Your task to perform on an android device: View the shopping cart on newegg. Add "razer blackwidow" to the cart on newegg Image 0: 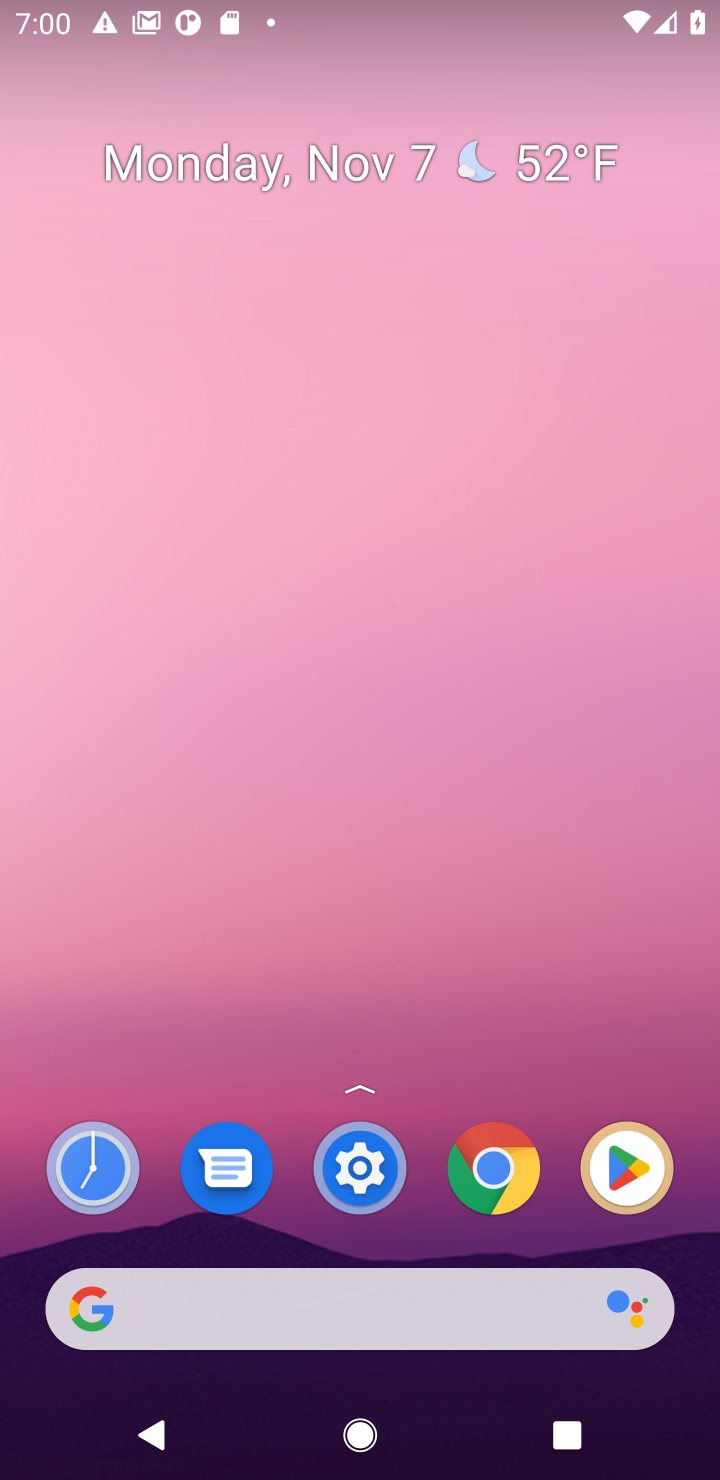
Step 0: click (302, 1335)
Your task to perform on an android device: View the shopping cart on newegg. Add "razer blackwidow" to the cart on newegg Image 1: 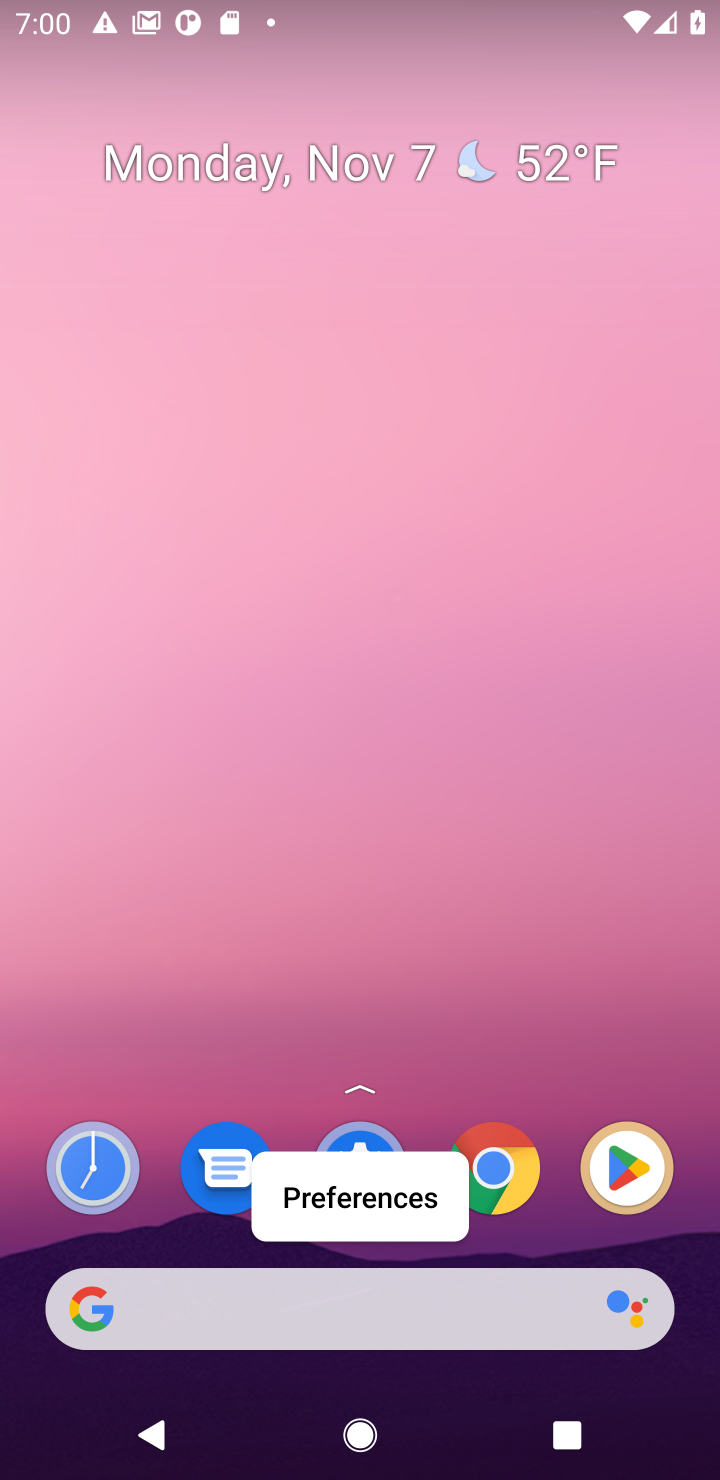
Step 1: click (282, 1318)
Your task to perform on an android device: View the shopping cart on newegg. Add "razer blackwidow" to the cart on newegg Image 2: 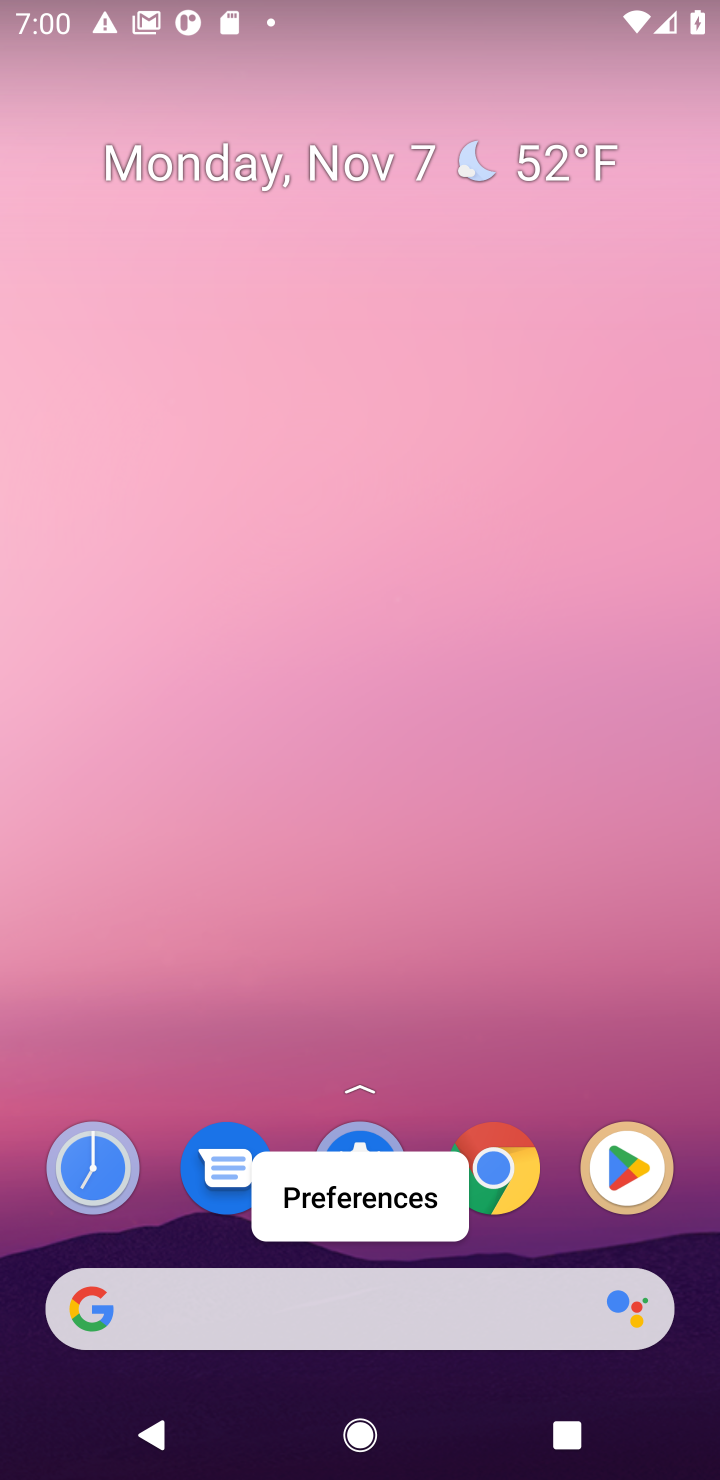
Step 2: click (250, 1304)
Your task to perform on an android device: View the shopping cart on newegg. Add "razer blackwidow" to the cart on newegg Image 3: 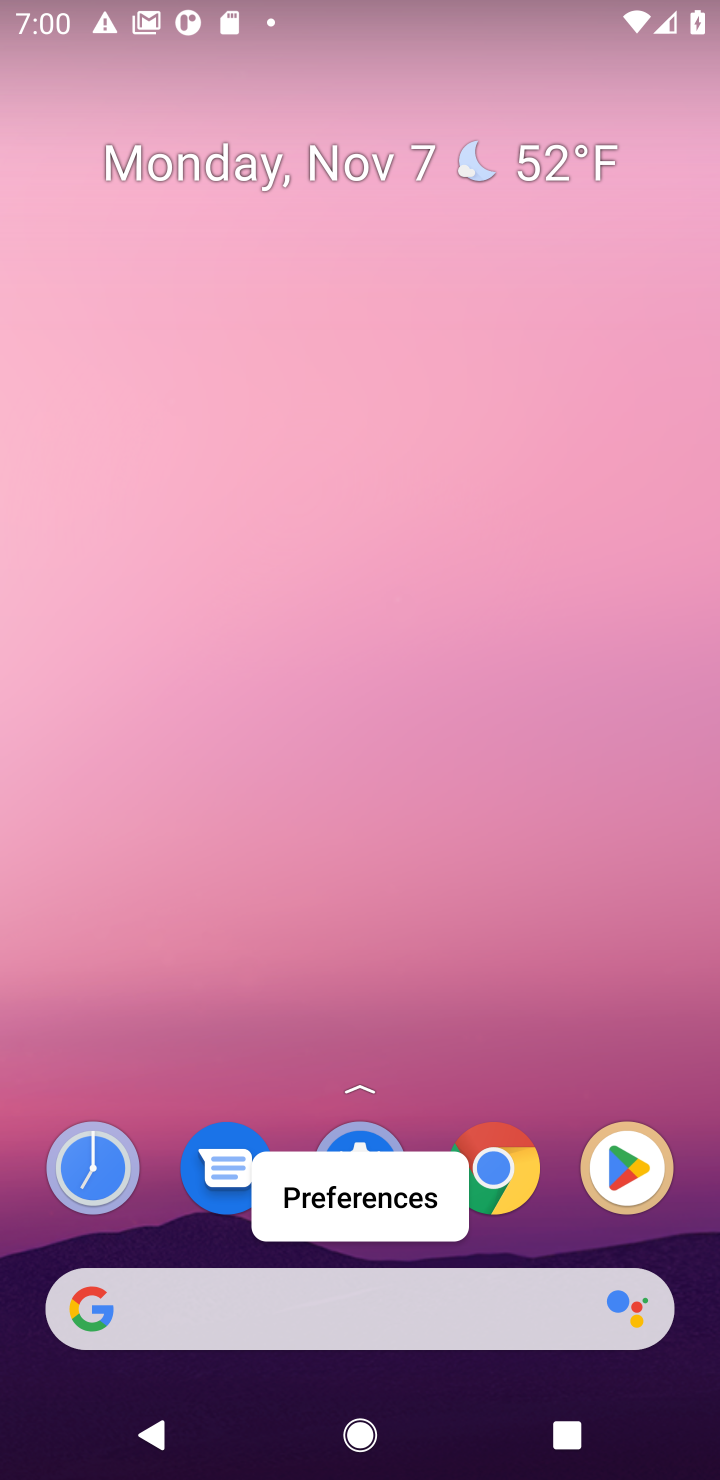
Step 3: click (250, 1304)
Your task to perform on an android device: View the shopping cart on newegg. Add "razer blackwidow" to the cart on newegg Image 4: 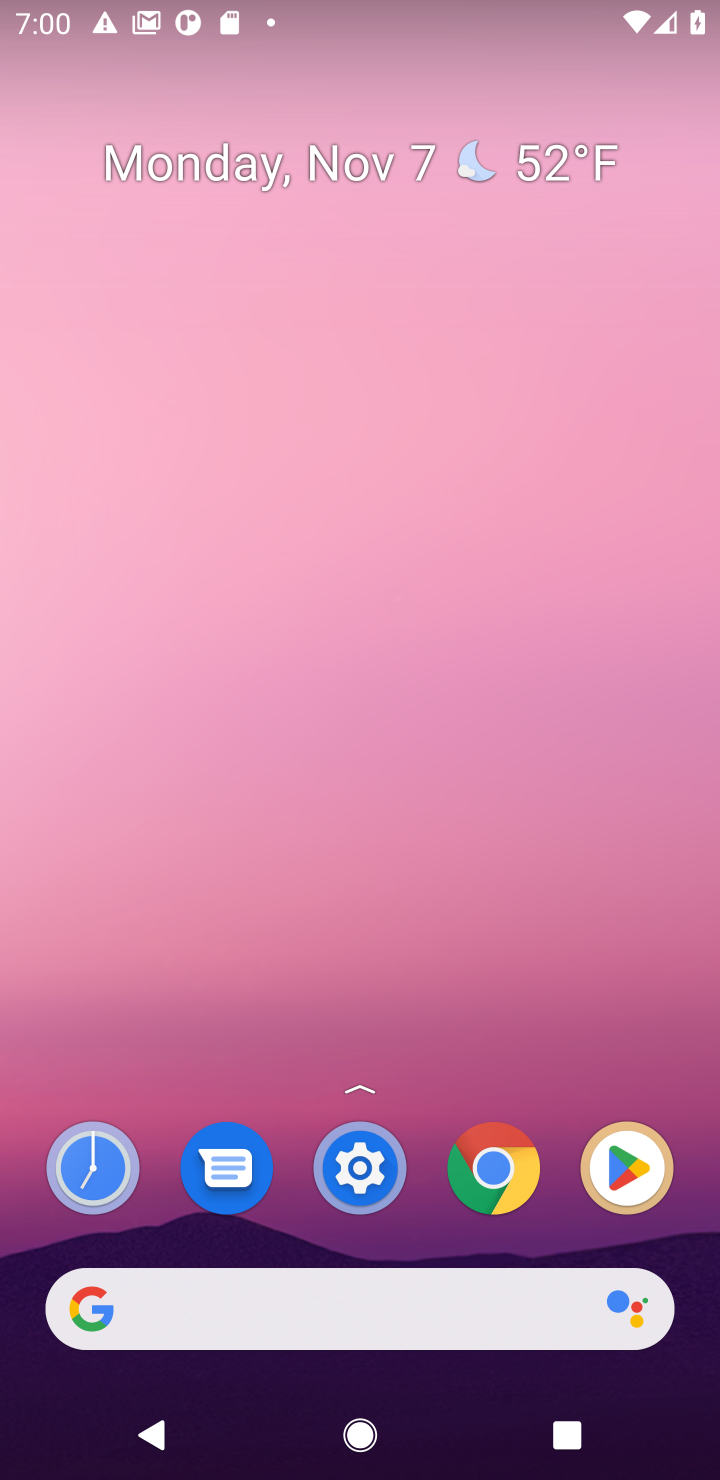
Step 4: click (250, 1304)
Your task to perform on an android device: View the shopping cart on newegg. Add "razer blackwidow" to the cart on newegg Image 5: 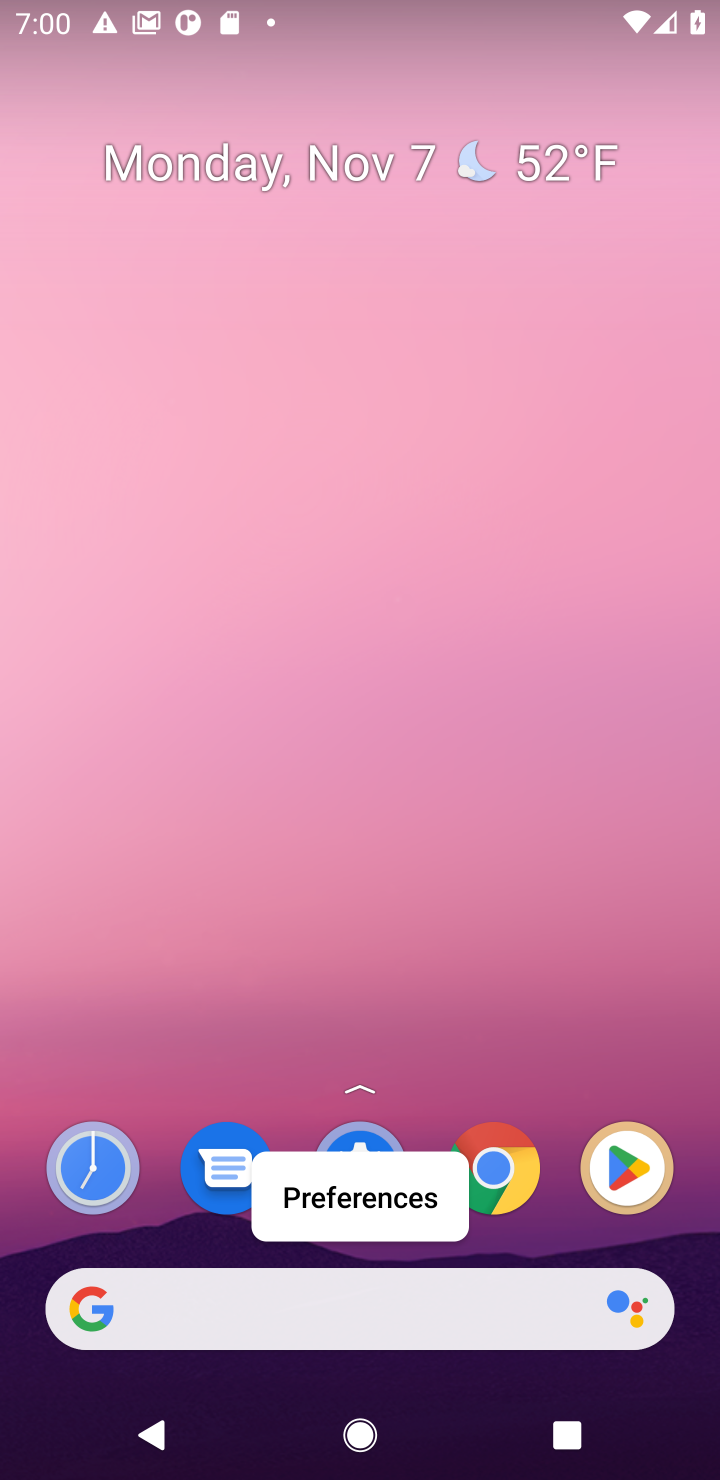
Step 5: click (250, 1304)
Your task to perform on an android device: View the shopping cart on newegg. Add "razer blackwidow" to the cart on newegg Image 6: 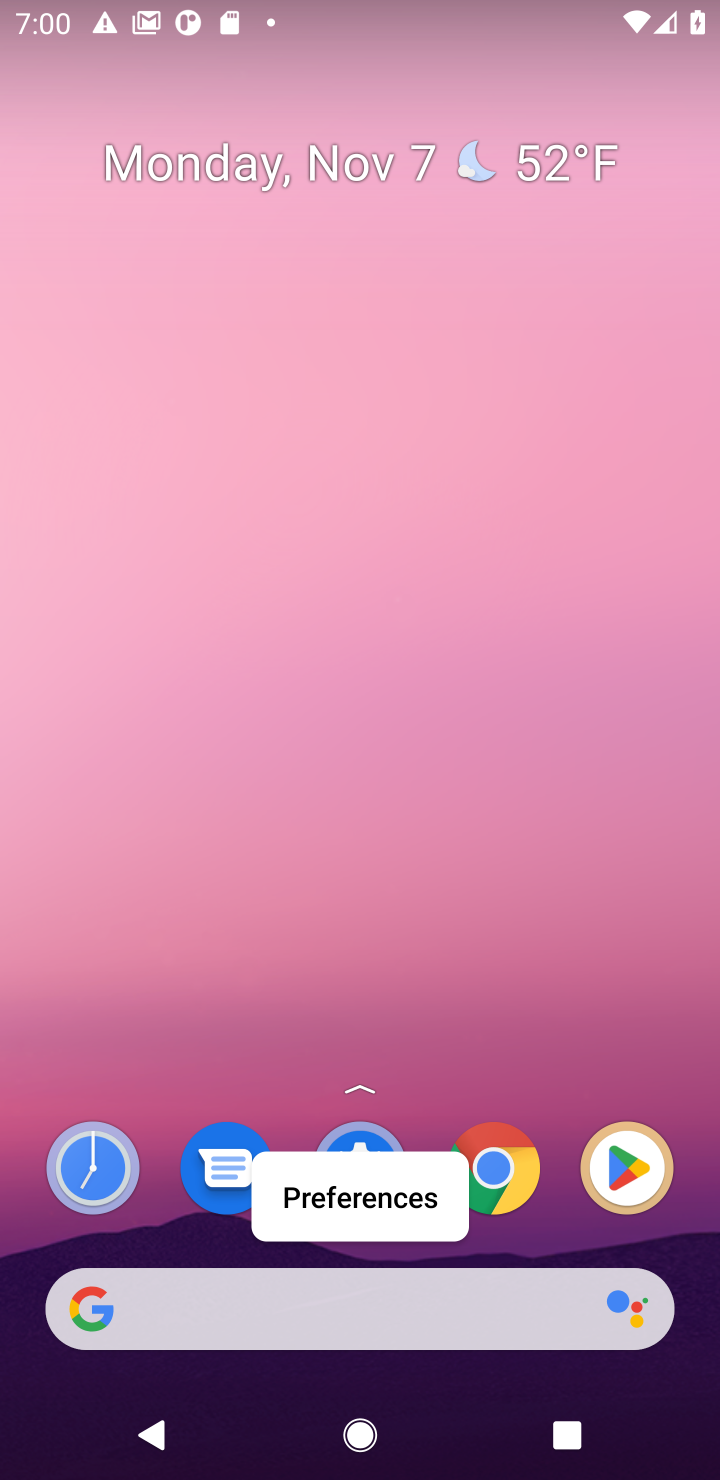
Step 6: click (198, 1319)
Your task to perform on an android device: View the shopping cart on newegg. Add "razer blackwidow" to the cart on newegg Image 7: 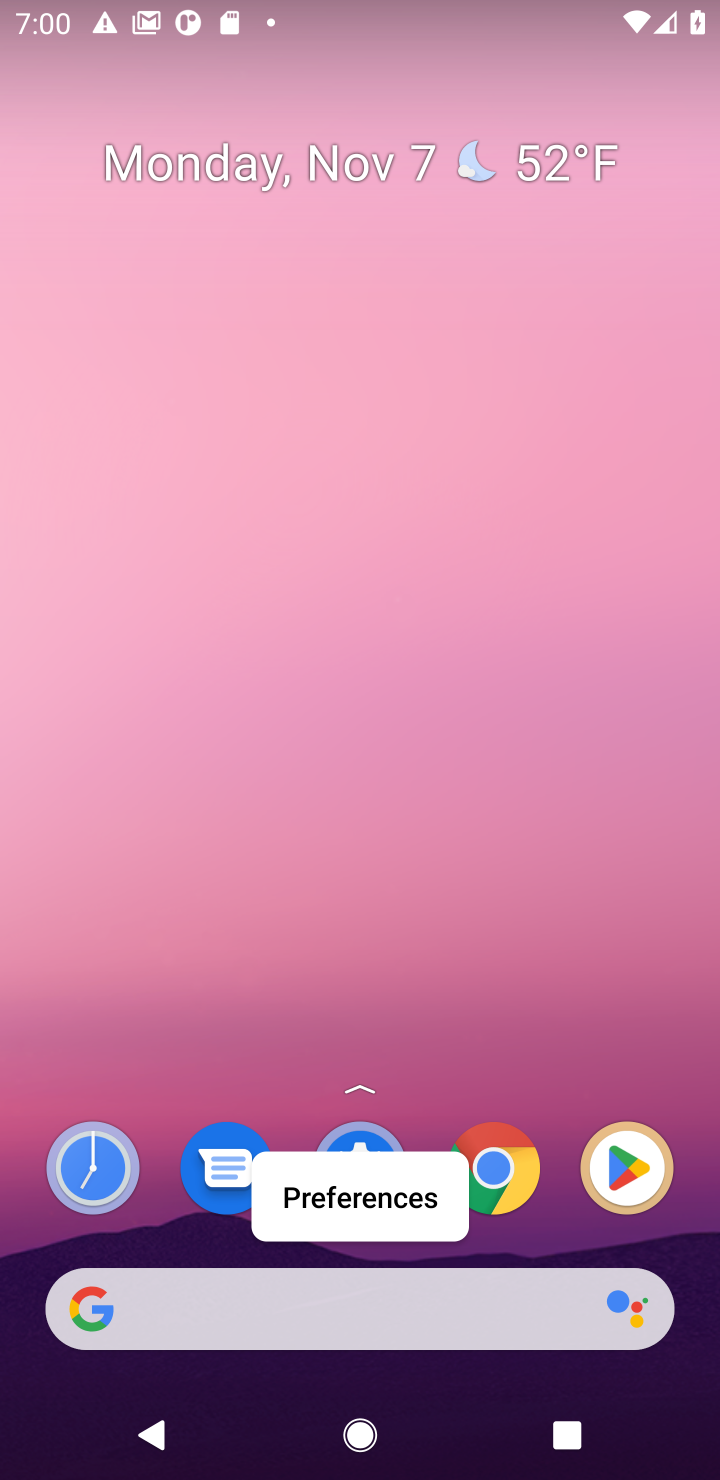
Step 7: click (206, 1317)
Your task to perform on an android device: View the shopping cart on newegg. Add "razer blackwidow" to the cart on newegg Image 8: 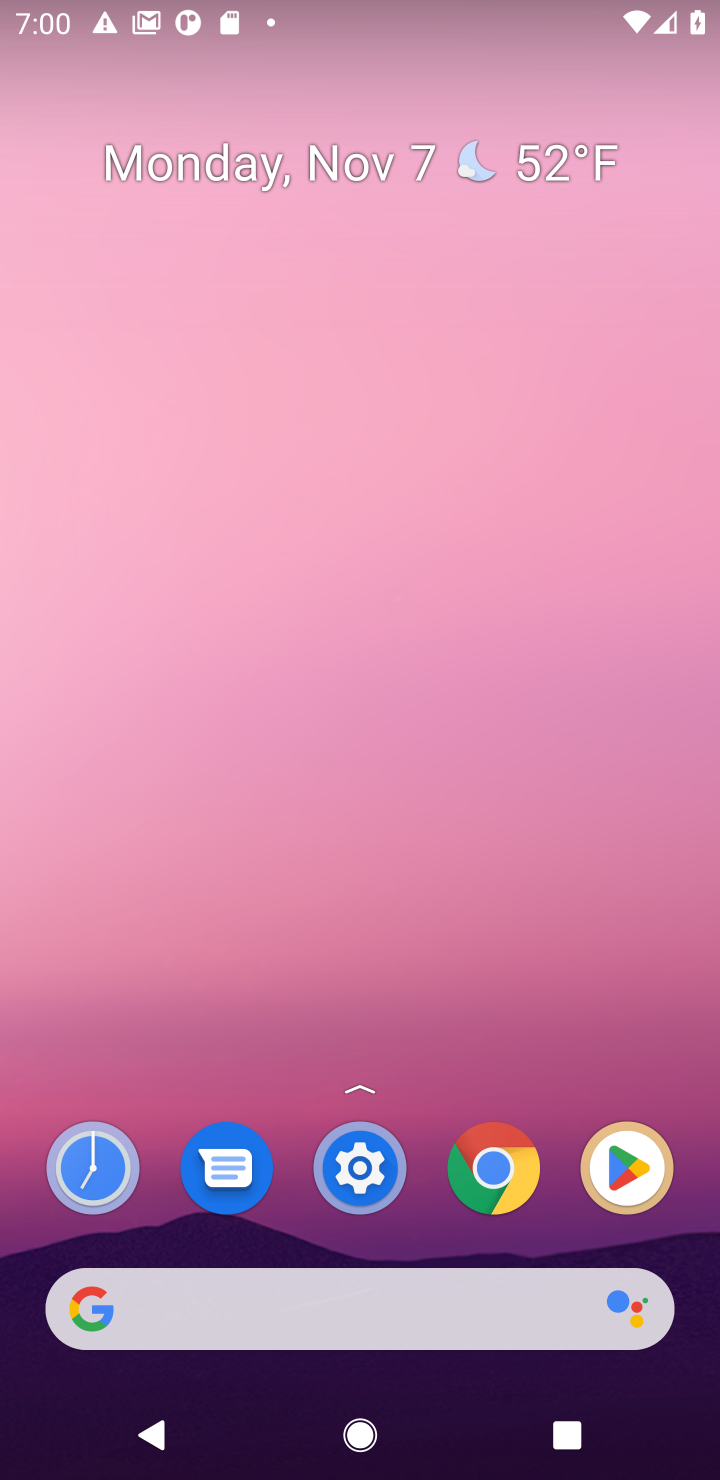
Step 8: click (206, 1317)
Your task to perform on an android device: View the shopping cart on newegg. Add "razer blackwidow" to the cart on newegg Image 9: 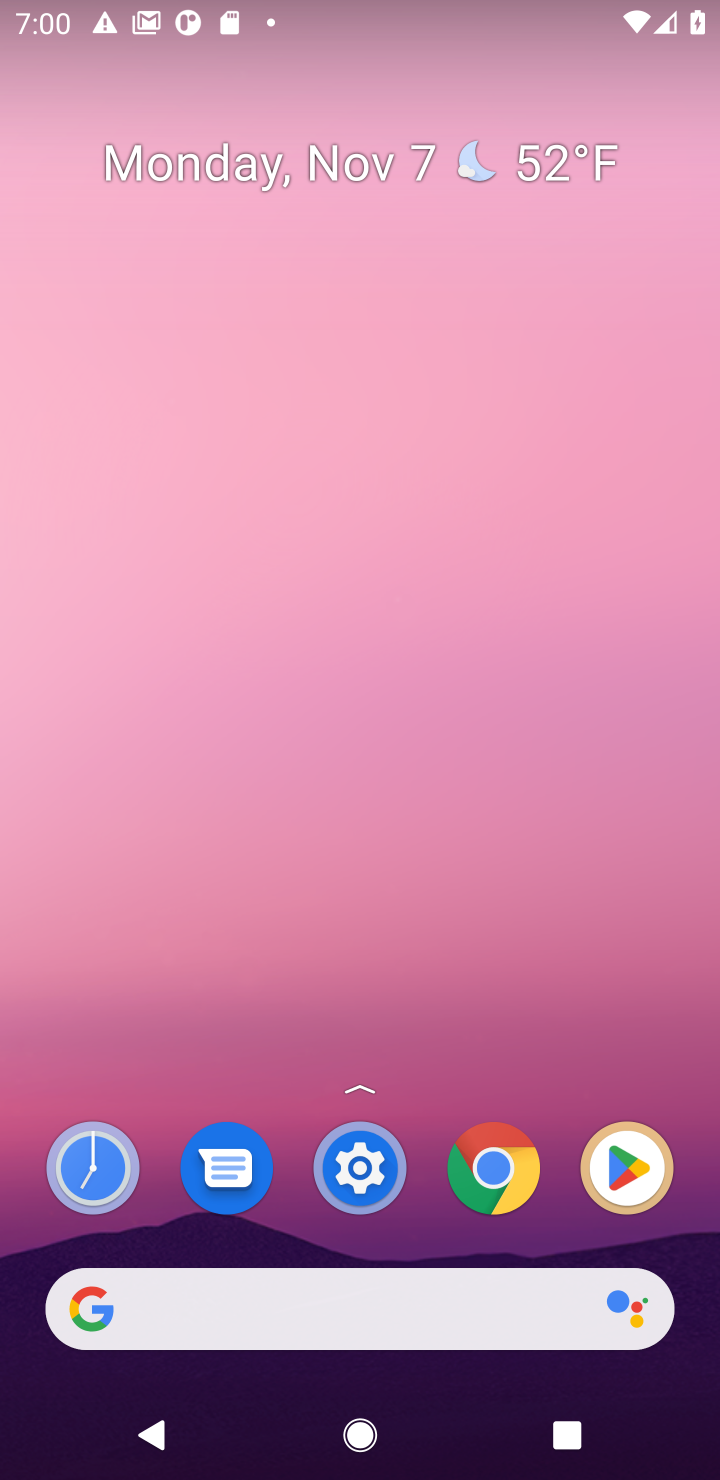
Step 9: click (206, 1317)
Your task to perform on an android device: View the shopping cart on newegg. Add "razer blackwidow" to the cart on newegg Image 10: 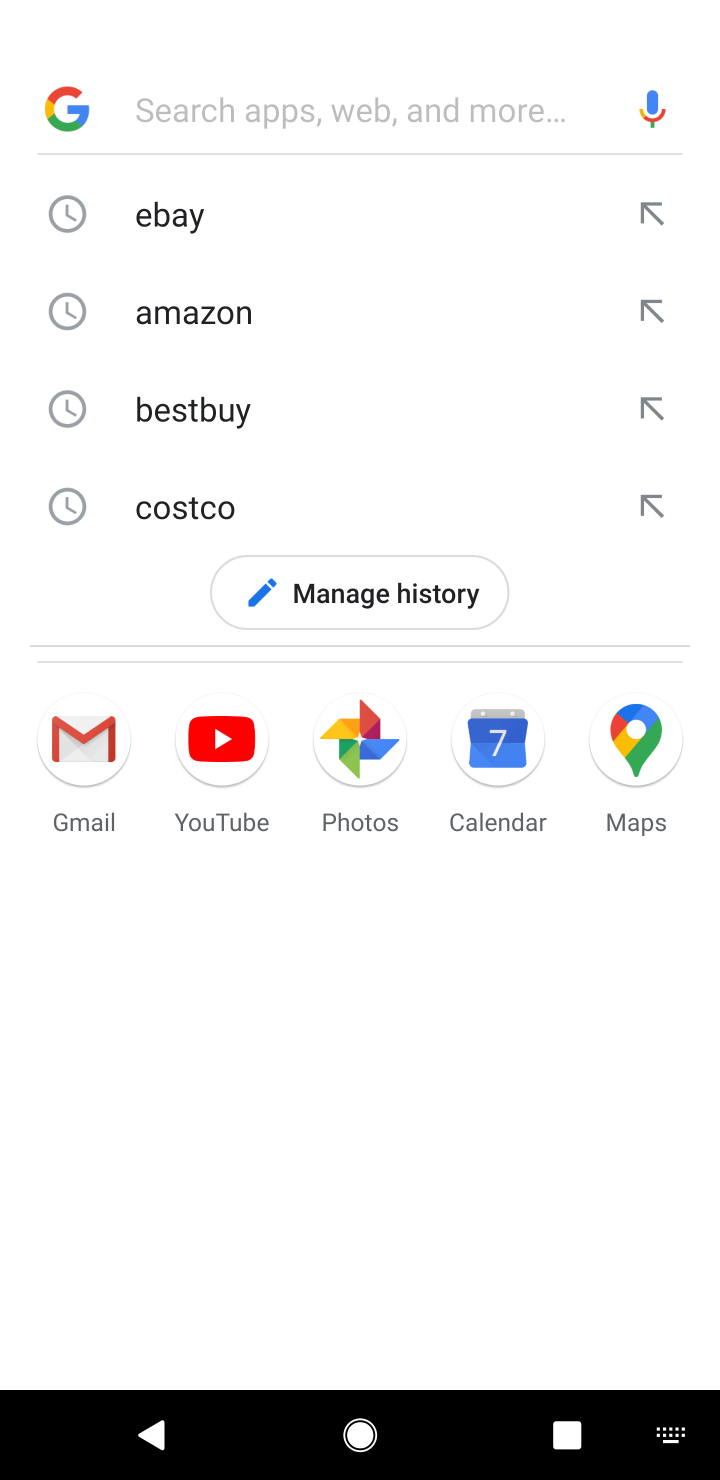
Step 10: type "newegg"
Your task to perform on an android device: View the shopping cart on newegg. Add "razer blackwidow" to the cart on newegg Image 11: 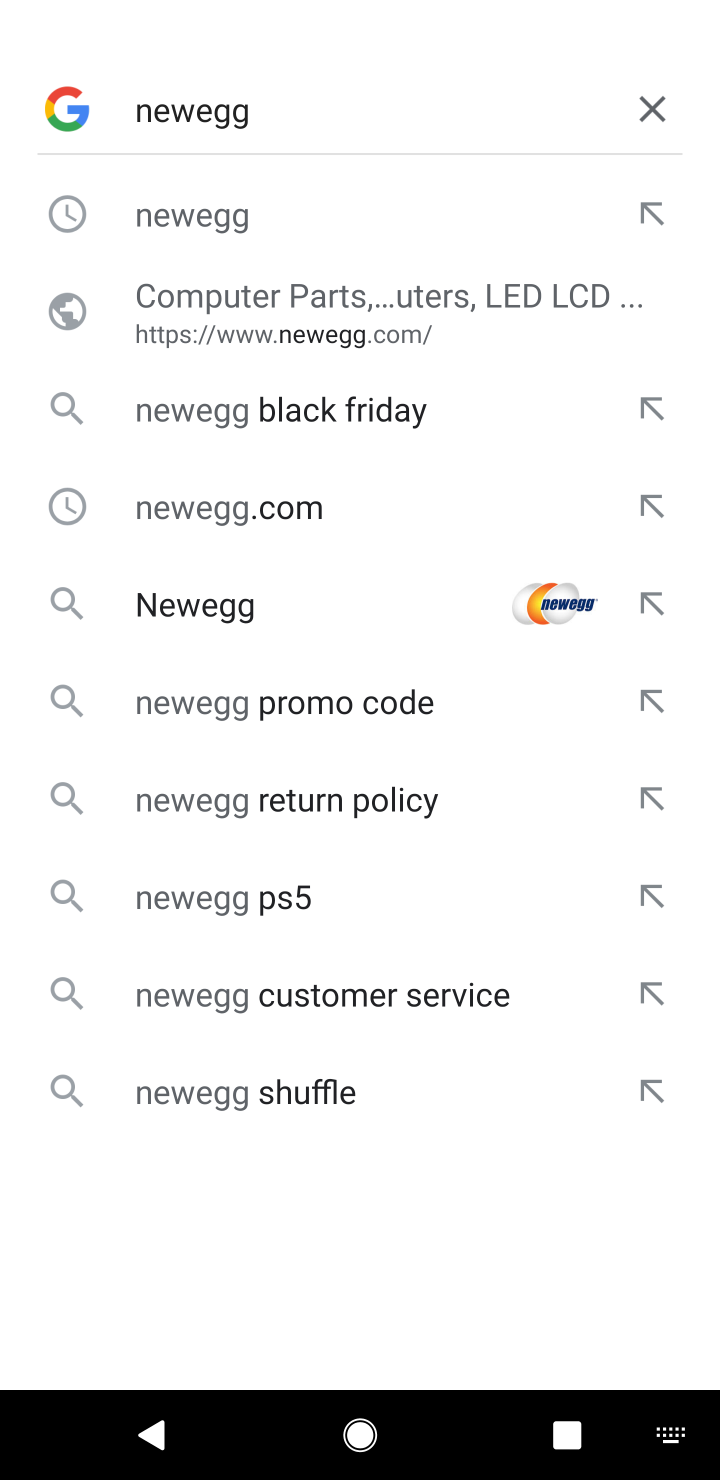
Step 11: type ""
Your task to perform on an android device: View the shopping cart on newegg. Add "razer blackwidow" to the cart on newegg Image 12: 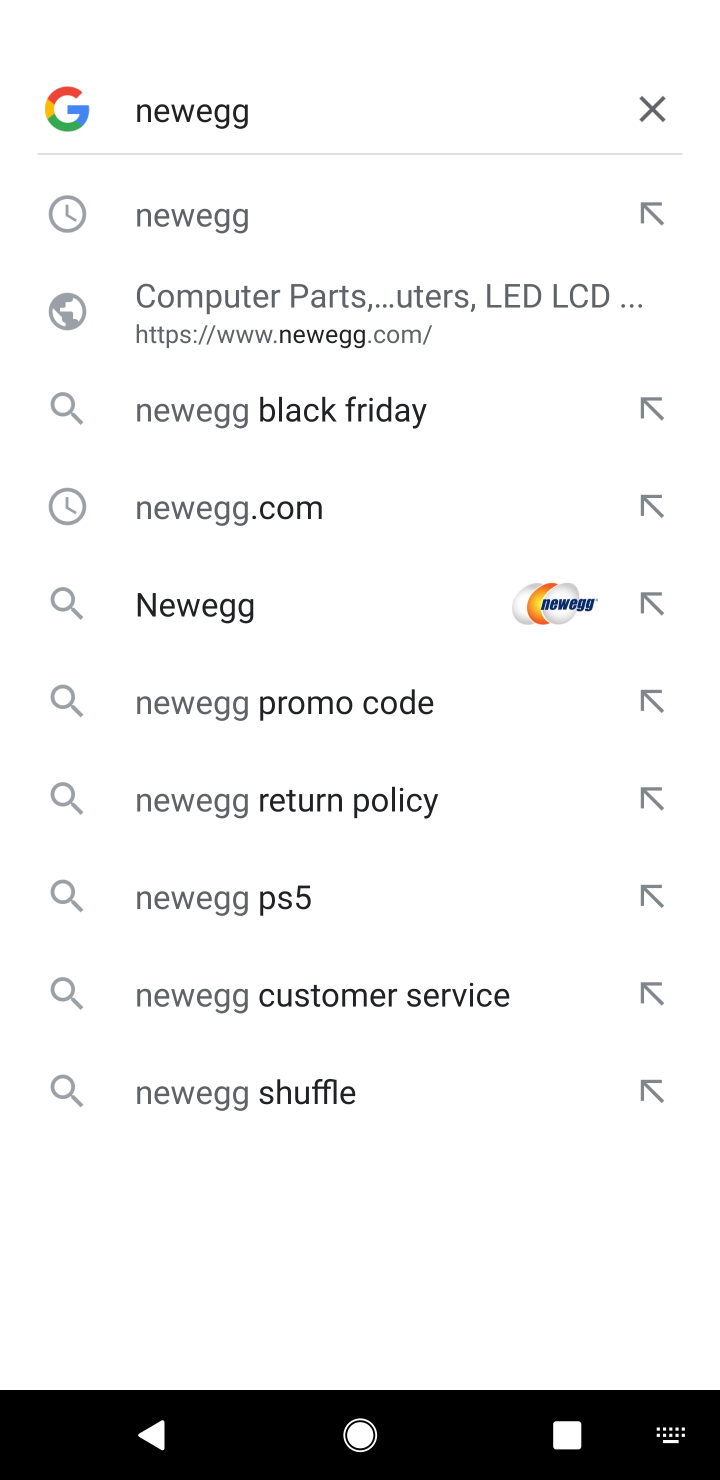
Step 12: press enter
Your task to perform on an android device: View the shopping cart on newegg. Add "razer blackwidow" to the cart on newegg Image 13: 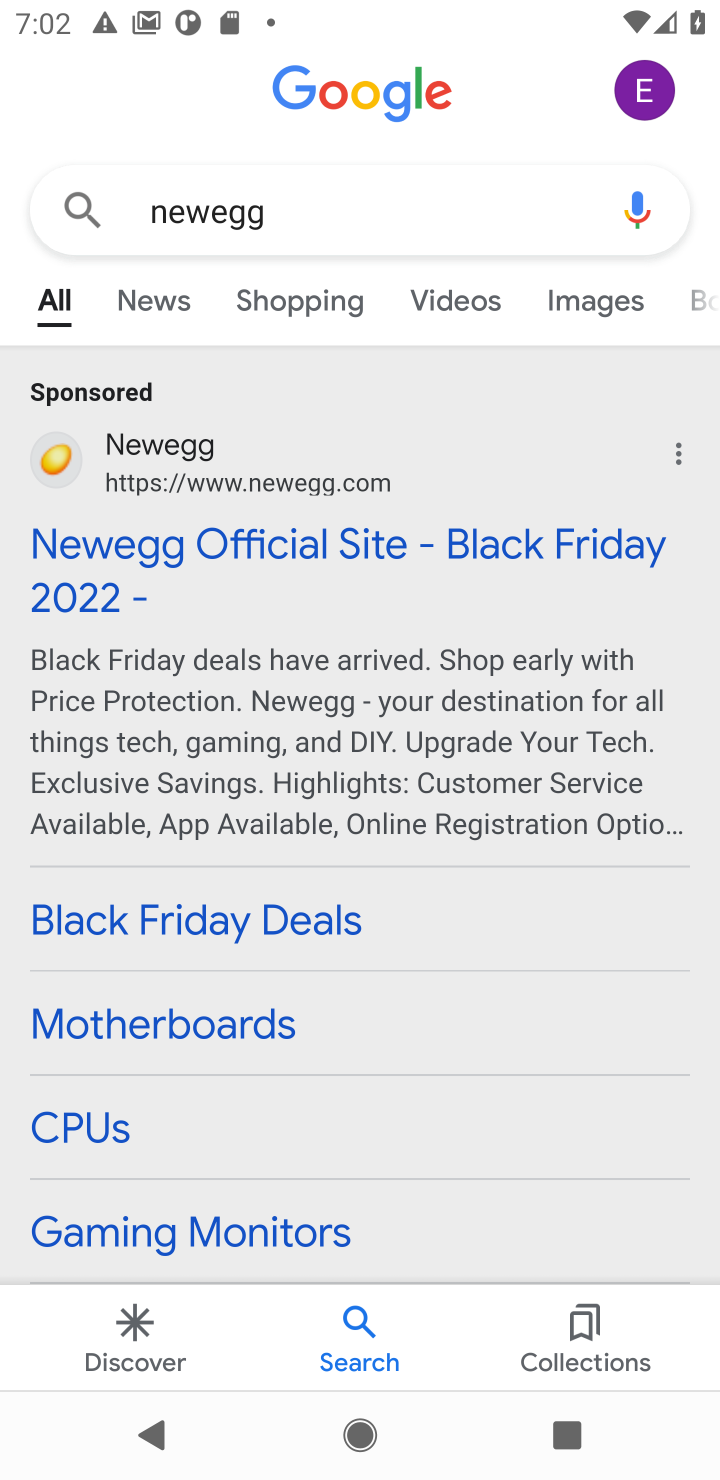
Step 13: task complete